Your task to perform on an android device: move a message to another label in the gmail app Image 0: 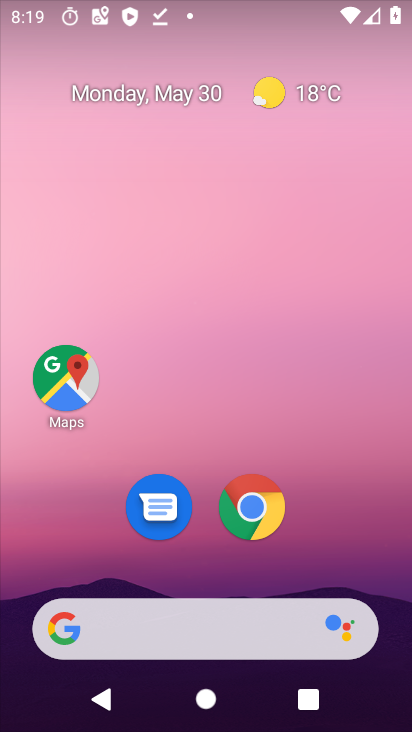
Step 0: drag from (321, 537) to (328, 202)
Your task to perform on an android device: move a message to another label in the gmail app Image 1: 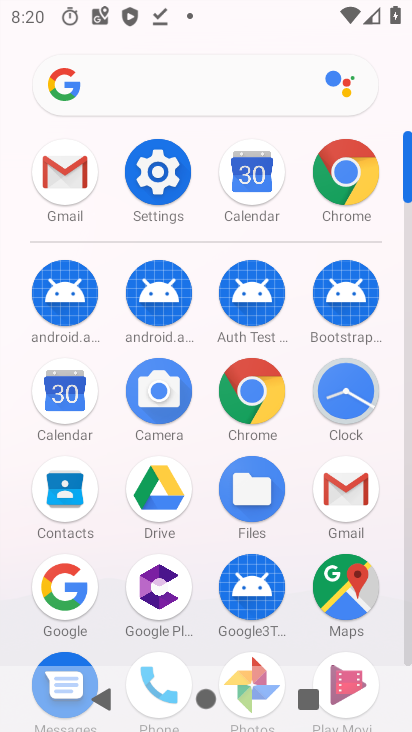
Step 1: click (324, 507)
Your task to perform on an android device: move a message to another label in the gmail app Image 2: 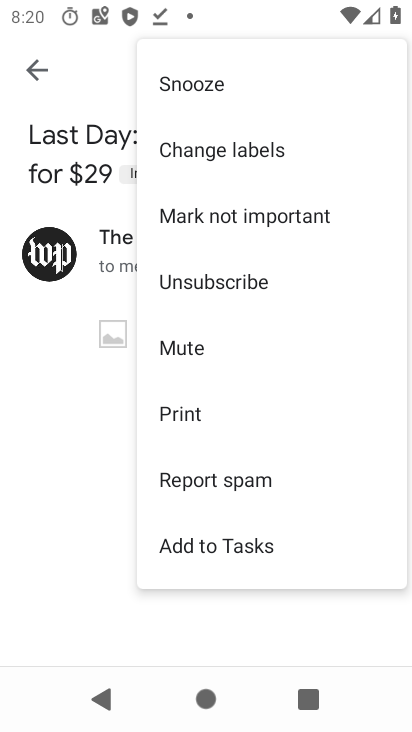
Step 2: click (43, 369)
Your task to perform on an android device: move a message to another label in the gmail app Image 3: 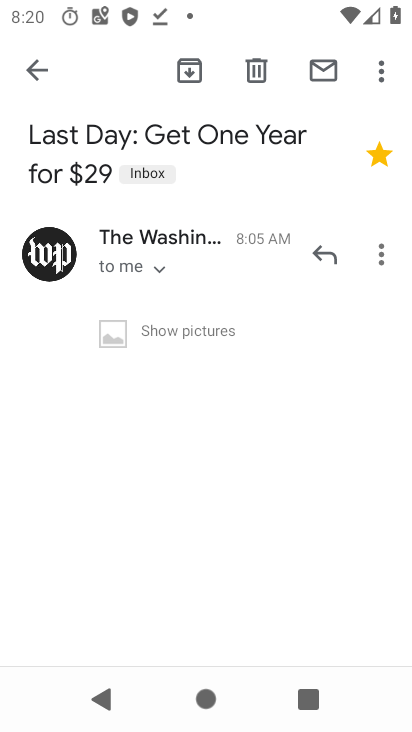
Step 3: click (373, 71)
Your task to perform on an android device: move a message to another label in the gmail app Image 4: 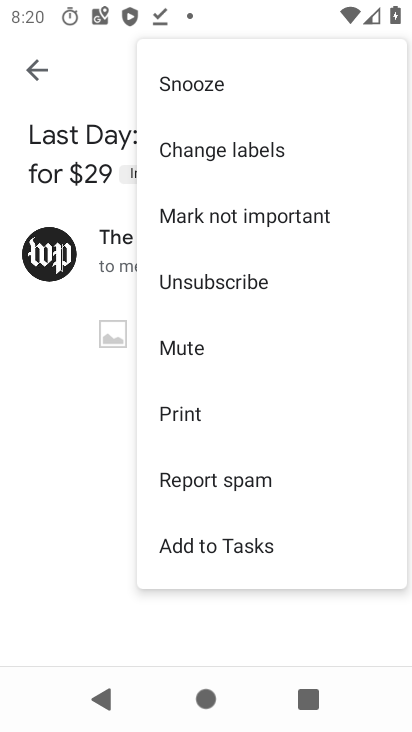
Step 4: task complete